Your task to perform on an android device: move a message to another label in the gmail app Image 0: 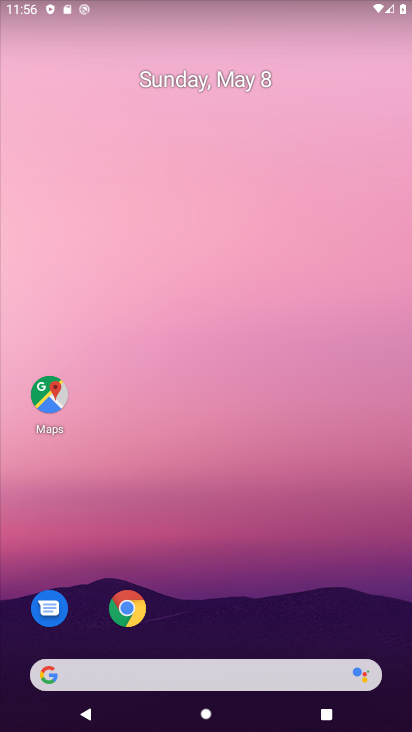
Step 0: drag from (192, 647) to (319, 152)
Your task to perform on an android device: move a message to another label in the gmail app Image 1: 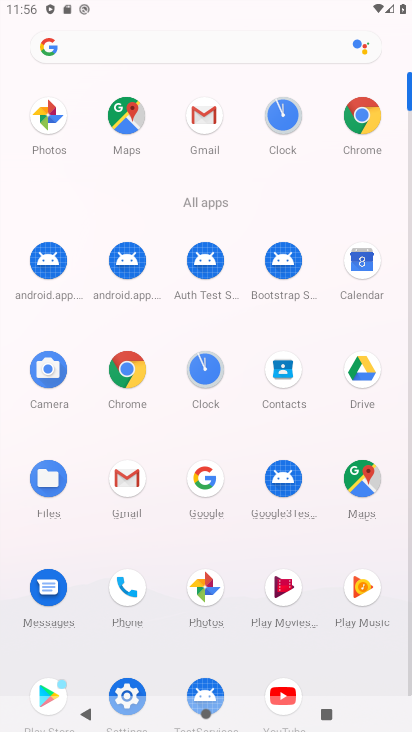
Step 1: click (125, 491)
Your task to perform on an android device: move a message to another label in the gmail app Image 2: 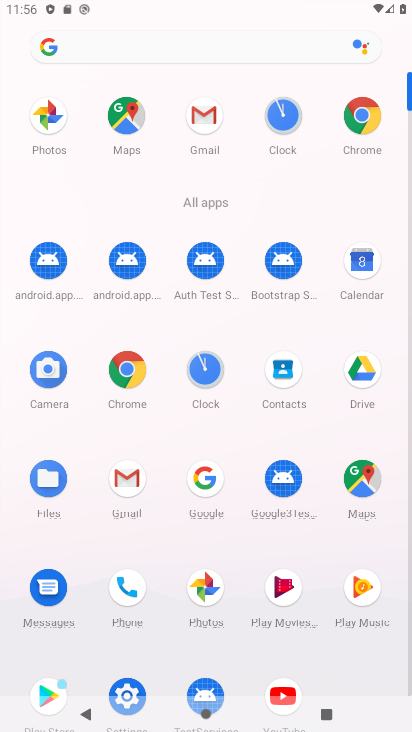
Step 2: click (125, 491)
Your task to perform on an android device: move a message to another label in the gmail app Image 3: 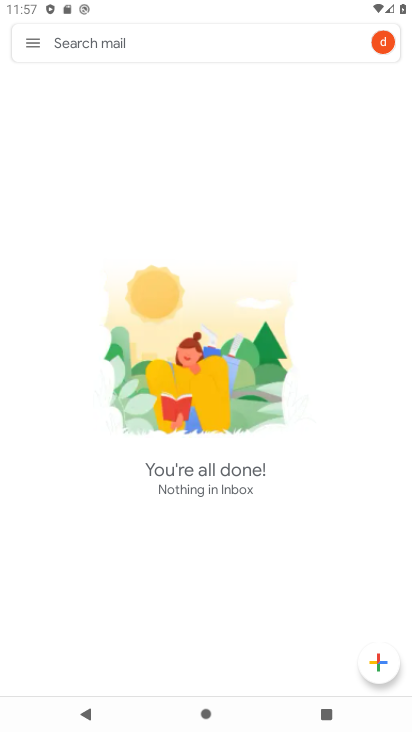
Step 3: click (34, 42)
Your task to perform on an android device: move a message to another label in the gmail app Image 4: 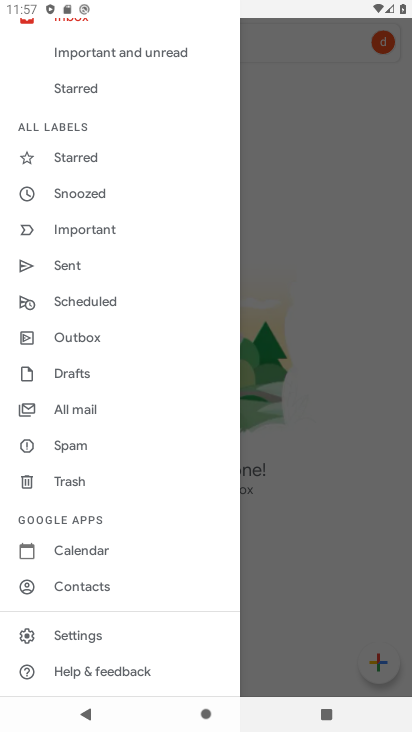
Step 4: click (155, 398)
Your task to perform on an android device: move a message to another label in the gmail app Image 5: 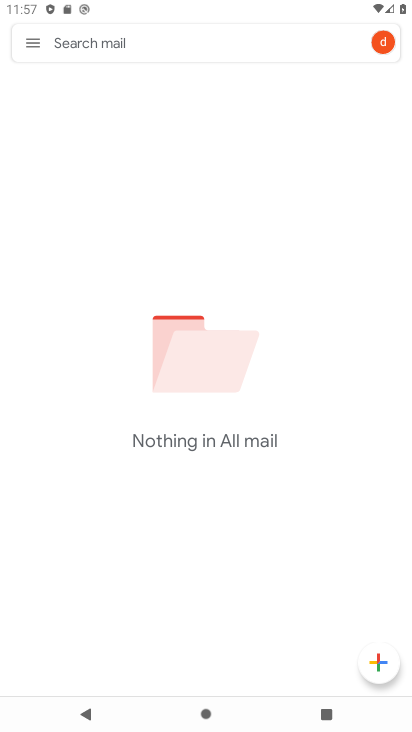
Step 5: task complete